Your task to perform on an android device: change notification settings in the gmail app Image 0: 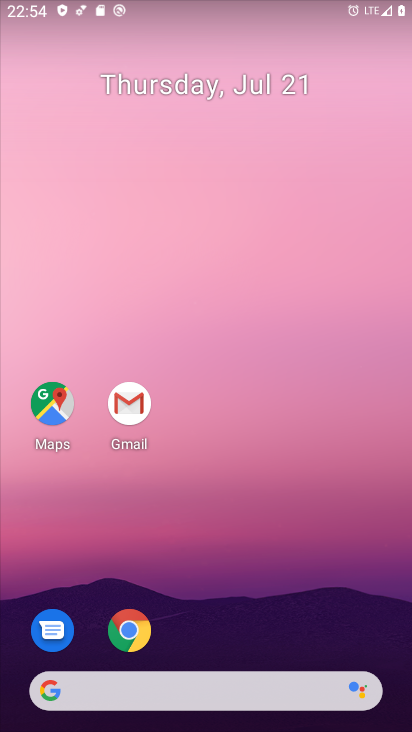
Step 0: drag from (313, 637) to (323, 387)
Your task to perform on an android device: change notification settings in the gmail app Image 1: 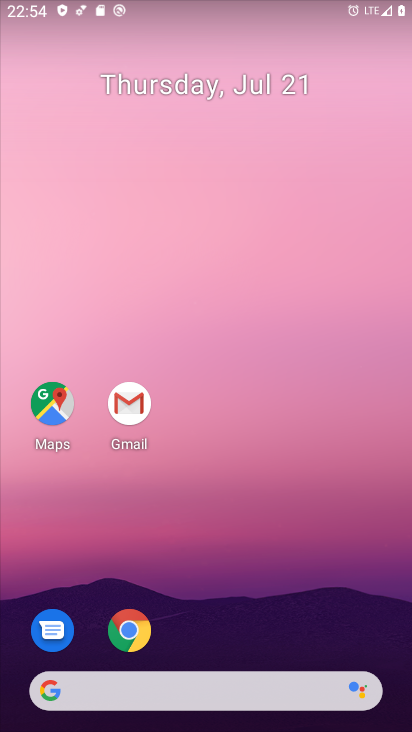
Step 1: drag from (222, 455) to (222, 332)
Your task to perform on an android device: change notification settings in the gmail app Image 2: 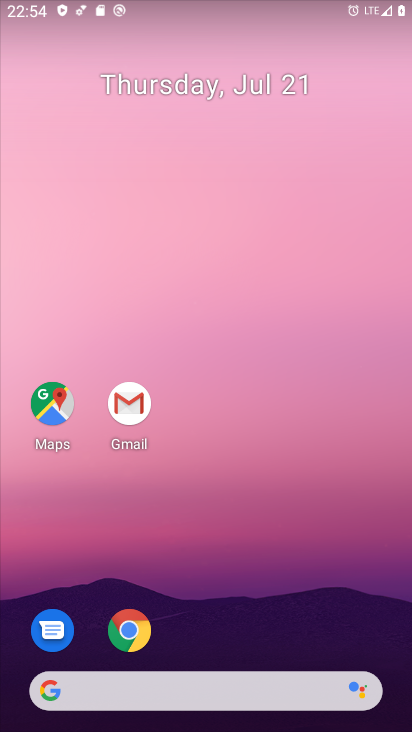
Step 2: drag from (174, 698) to (197, 90)
Your task to perform on an android device: change notification settings in the gmail app Image 3: 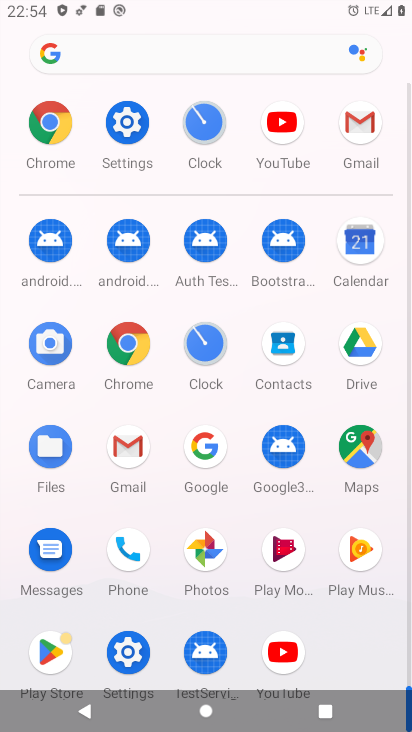
Step 3: drag from (244, 583) to (221, 217)
Your task to perform on an android device: change notification settings in the gmail app Image 4: 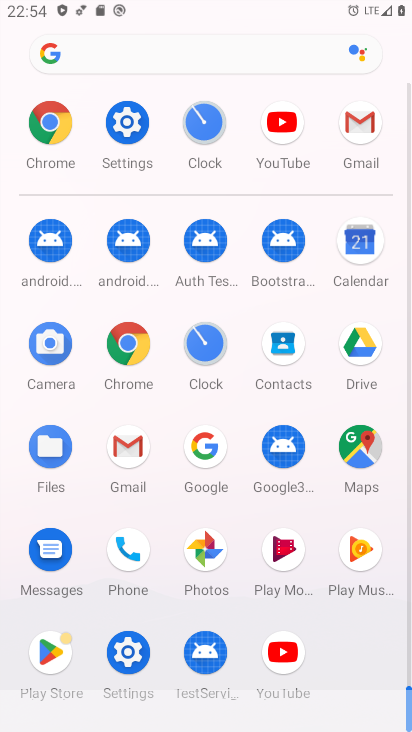
Step 4: click (130, 441)
Your task to perform on an android device: change notification settings in the gmail app Image 5: 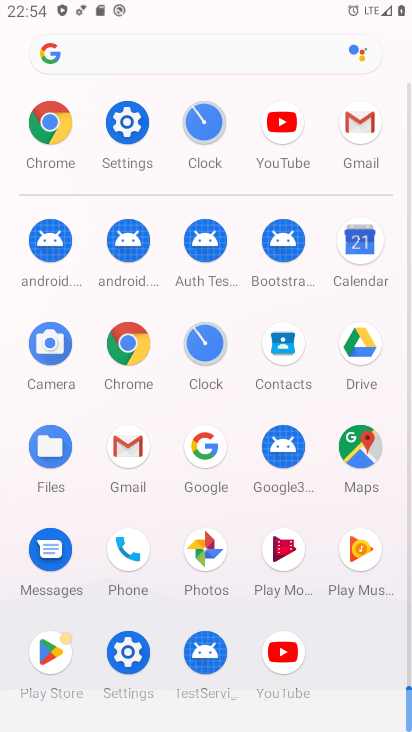
Step 5: click (129, 440)
Your task to perform on an android device: change notification settings in the gmail app Image 6: 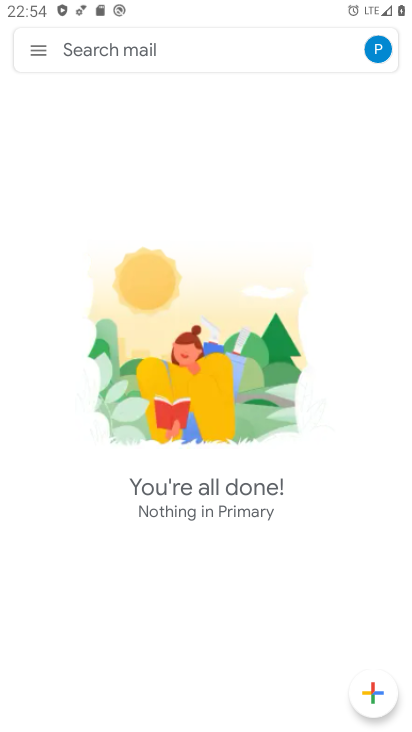
Step 6: click (40, 51)
Your task to perform on an android device: change notification settings in the gmail app Image 7: 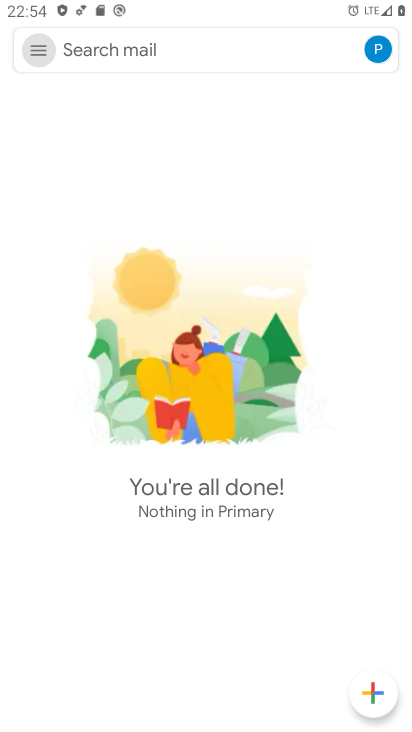
Step 7: click (38, 49)
Your task to perform on an android device: change notification settings in the gmail app Image 8: 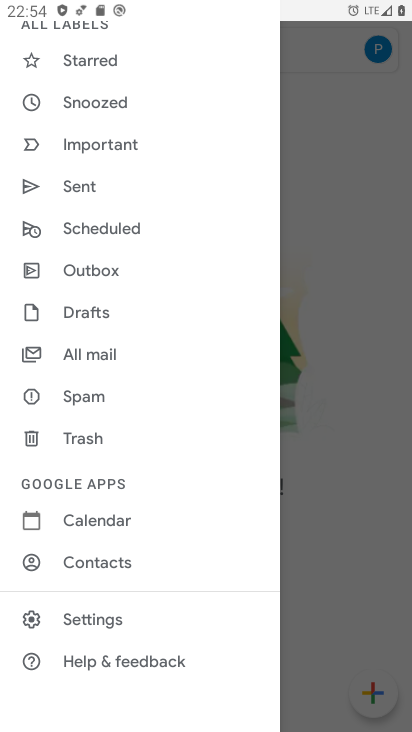
Step 8: click (94, 619)
Your task to perform on an android device: change notification settings in the gmail app Image 9: 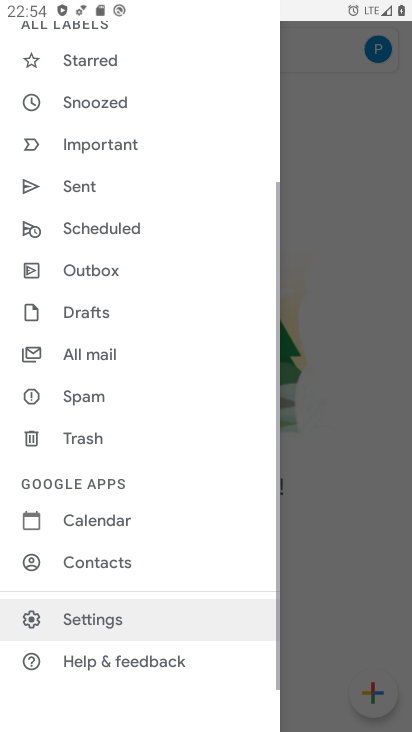
Step 9: click (92, 621)
Your task to perform on an android device: change notification settings in the gmail app Image 10: 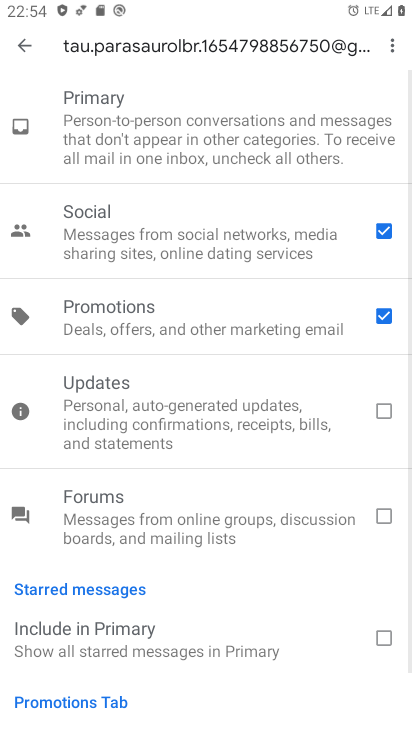
Step 10: click (15, 52)
Your task to perform on an android device: change notification settings in the gmail app Image 11: 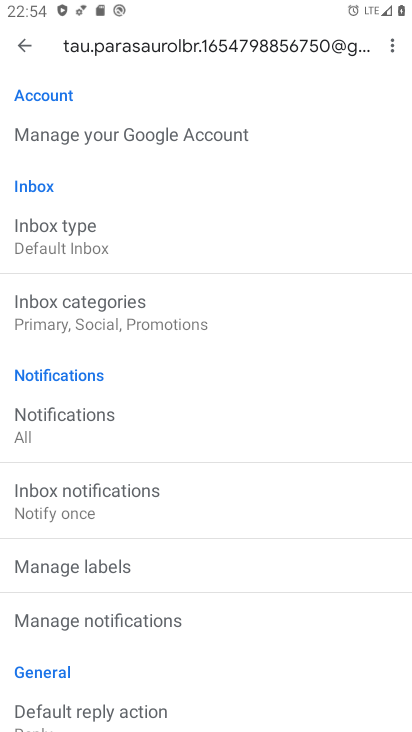
Step 11: click (37, 416)
Your task to perform on an android device: change notification settings in the gmail app Image 12: 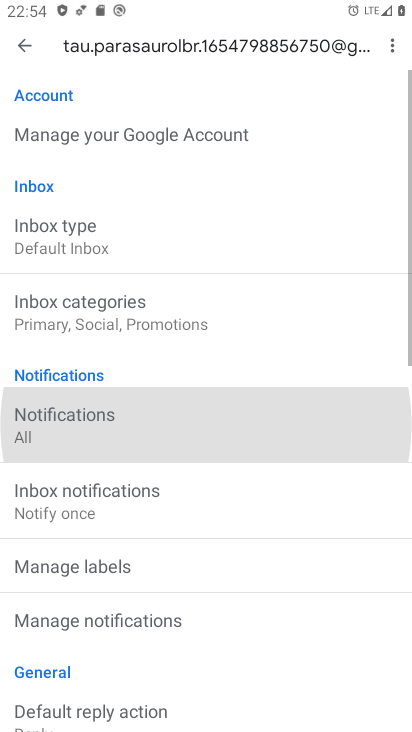
Step 12: click (37, 416)
Your task to perform on an android device: change notification settings in the gmail app Image 13: 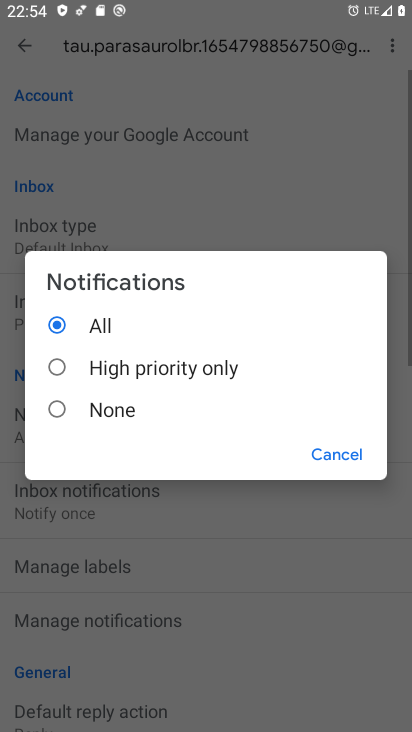
Step 13: click (57, 369)
Your task to perform on an android device: change notification settings in the gmail app Image 14: 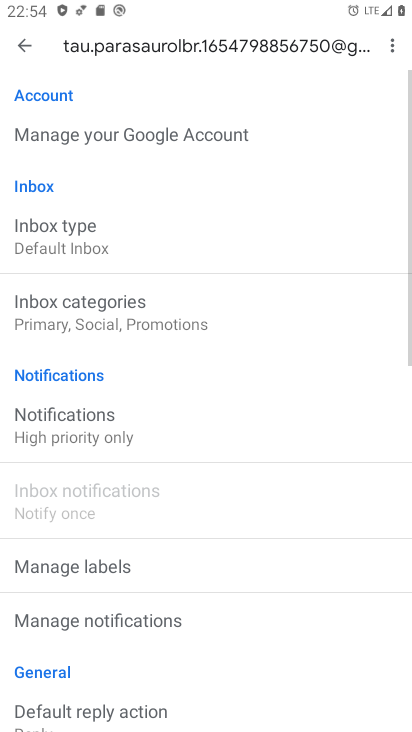
Step 14: task complete